Your task to perform on an android device: add a contact in the contacts app Image 0: 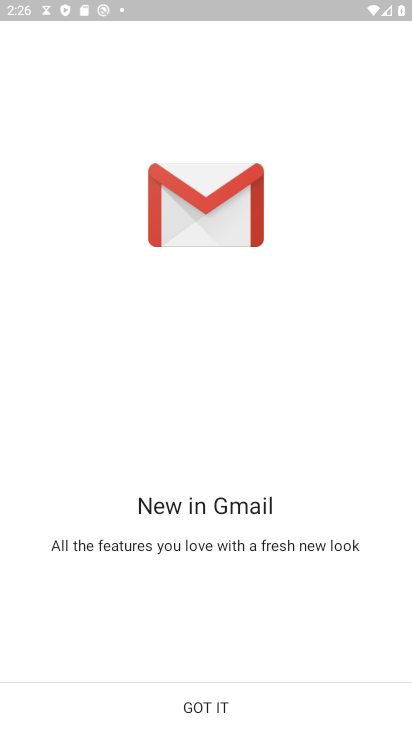
Step 0: click (209, 704)
Your task to perform on an android device: add a contact in the contacts app Image 1: 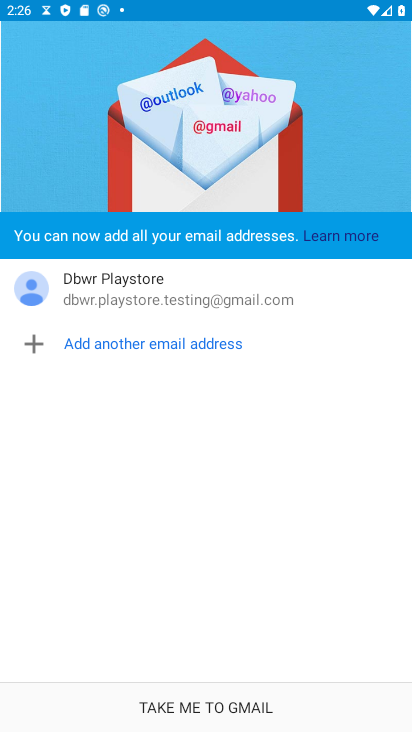
Step 1: click (202, 708)
Your task to perform on an android device: add a contact in the contacts app Image 2: 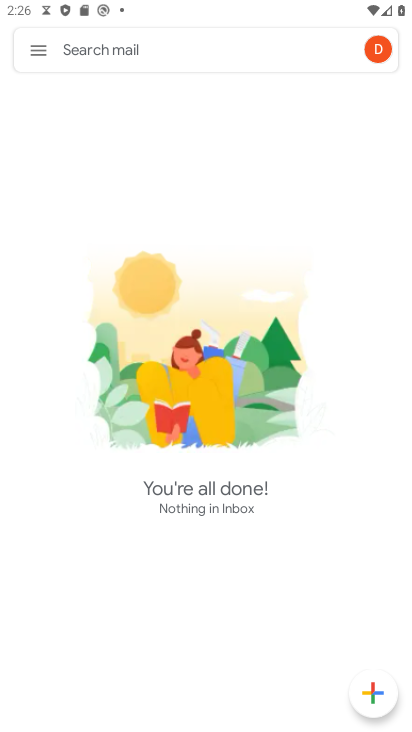
Step 2: press home button
Your task to perform on an android device: add a contact in the contacts app Image 3: 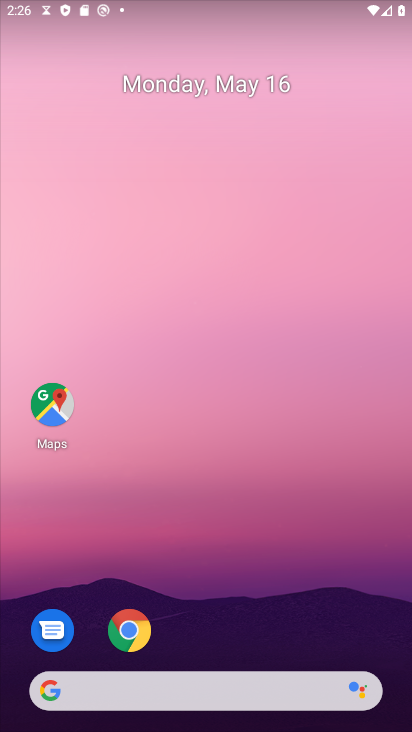
Step 3: drag from (232, 638) to (259, 110)
Your task to perform on an android device: add a contact in the contacts app Image 4: 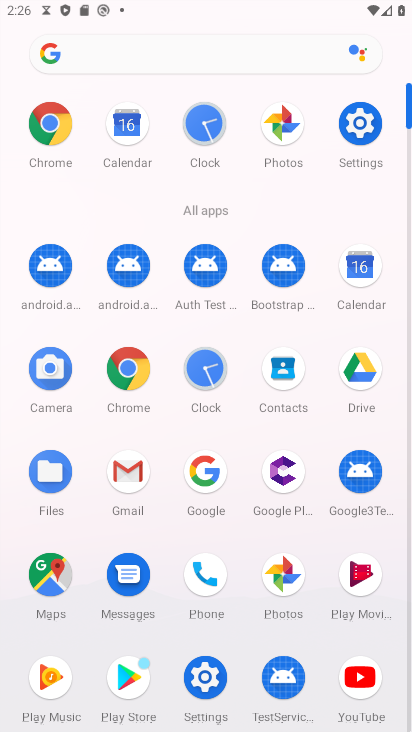
Step 4: click (279, 364)
Your task to perform on an android device: add a contact in the contacts app Image 5: 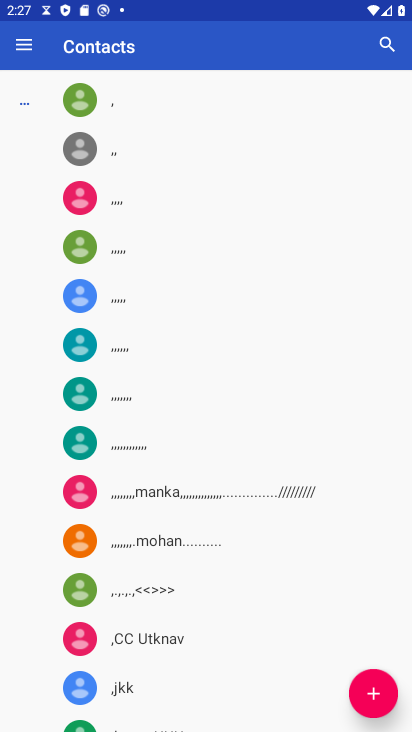
Step 5: click (371, 688)
Your task to perform on an android device: add a contact in the contacts app Image 6: 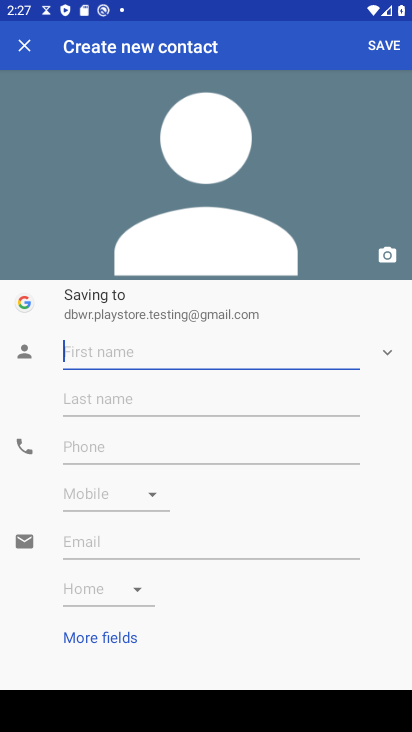
Step 6: type "crdxed"
Your task to perform on an android device: add a contact in the contacts app Image 7: 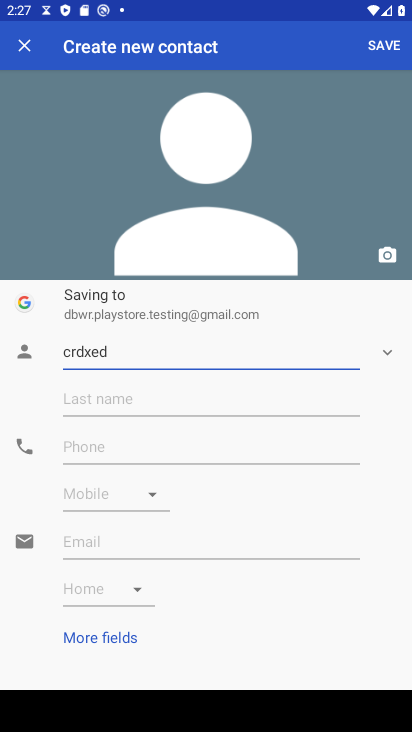
Step 7: click (387, 42)
Your task to perform on an android device: add a contact in the contacts app Image 8: 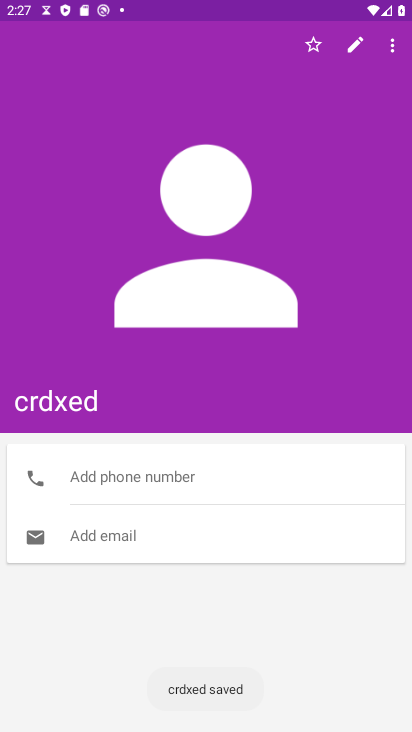
Step 8: task complete